Your task to perform on an android device: set an alarm Image 0: 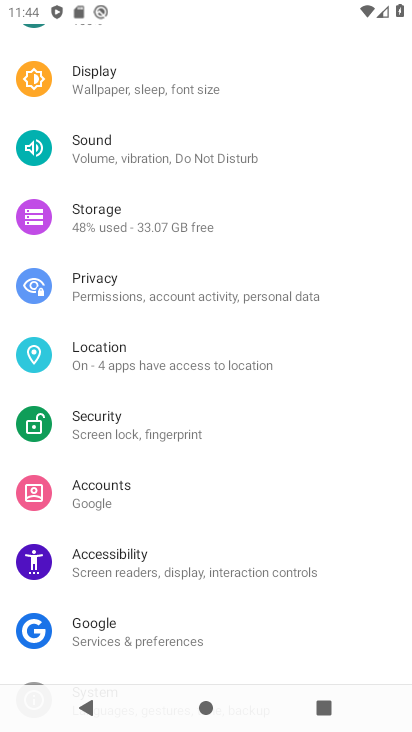
Step 0: press home button
Your task to perform on an android device: set an alarm Image 1: 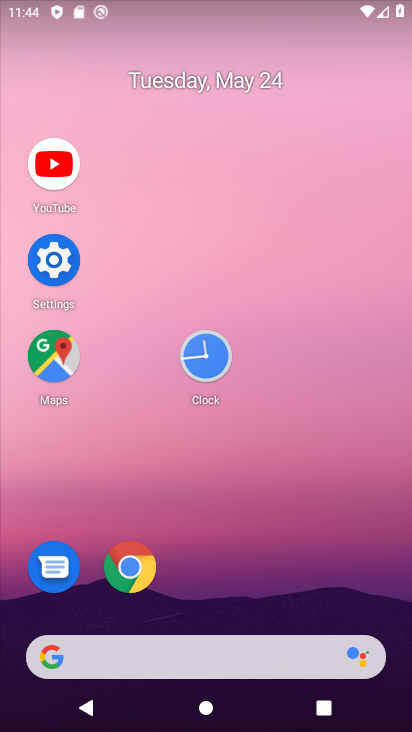
Step 1: drag from (204, 353) to (138, 293)
Your task to perform on an android device: set an alarm Image 2: 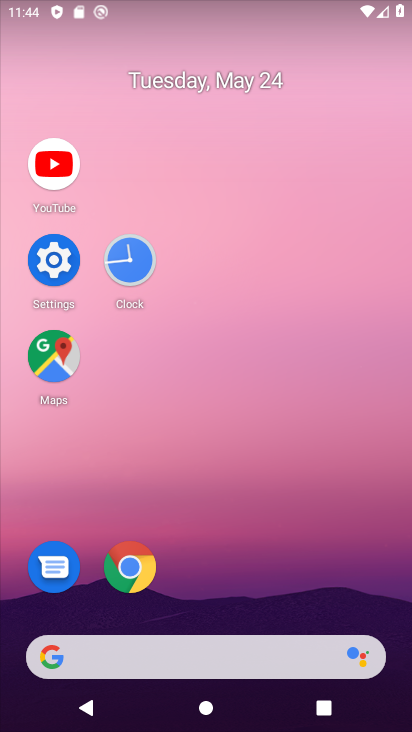
Step 2: click (130, 272)
Your task to perform on an android device: set an alarm Image 3: 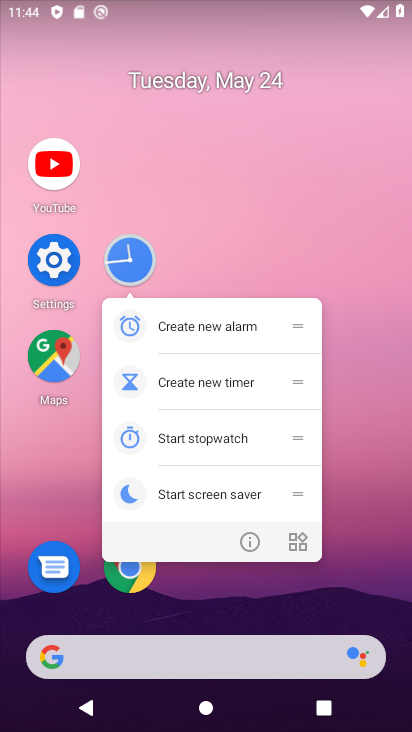
Step 3: click (130, 272)
Your task to perform on an android device: set an alarm Image 4: 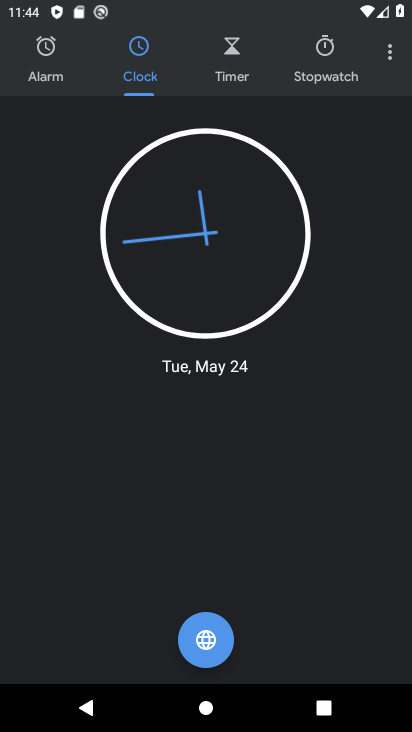
Step 4: click (68, 60)
Your task to perform on an android device: set an alarm Image 5: 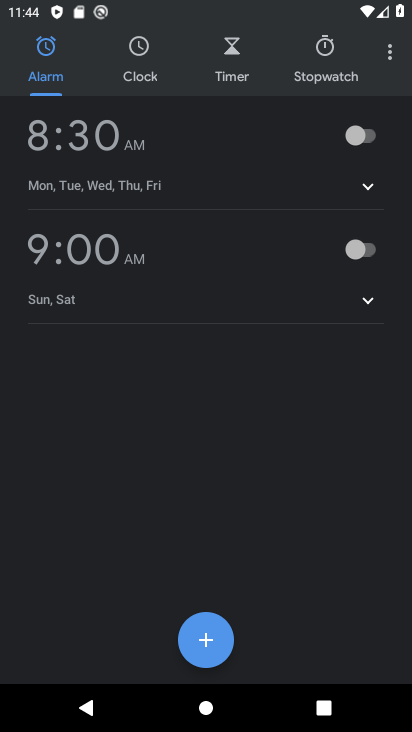
Step 5: click (366, 128)
Your task to perform on an android device: set an alarm Image 6: 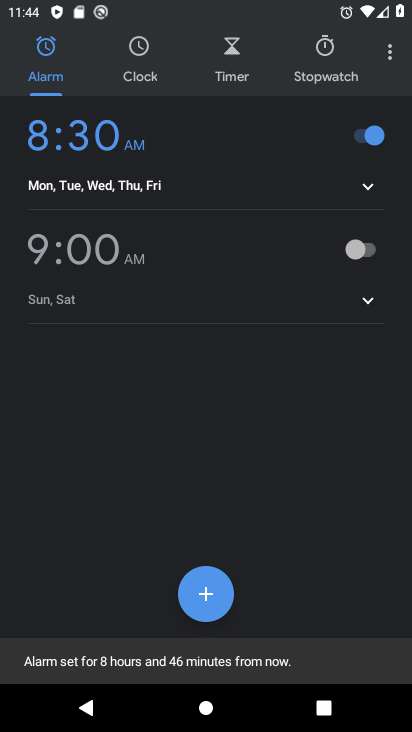
Step 6: task complete